Your task to perform on an android device: set the stopwatch Image 0: 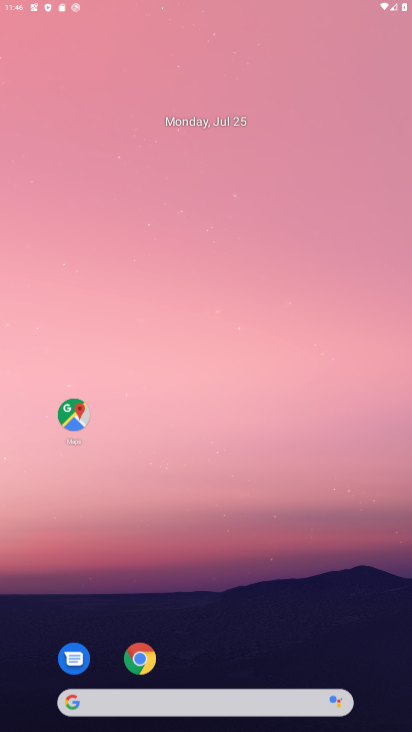
Step 0: press home button
Your task to perform on an android device: set the stopwatch Image 1: 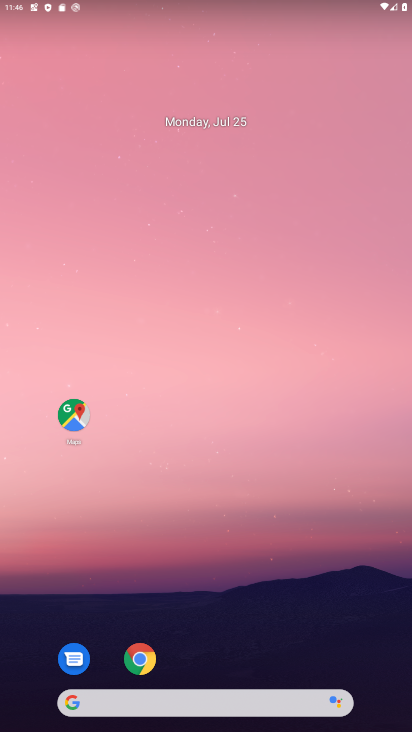
Step 1: click (141, 655)
Your task to perform on an android device: set the stopwatch Image 2: 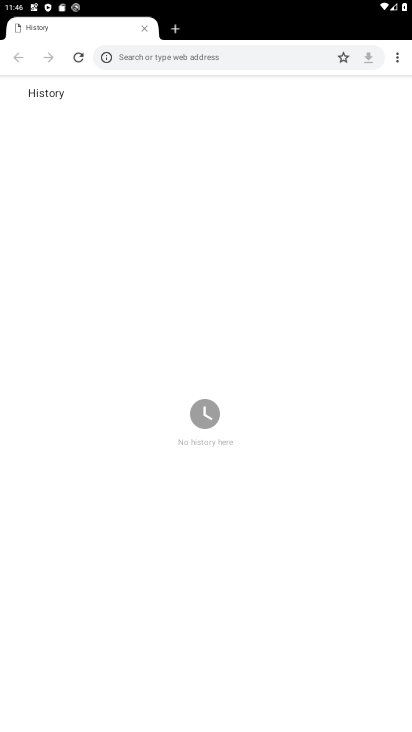
Step 2: click (181, 52)
Your task to perform on an android device: set the stopwatch Image 3: 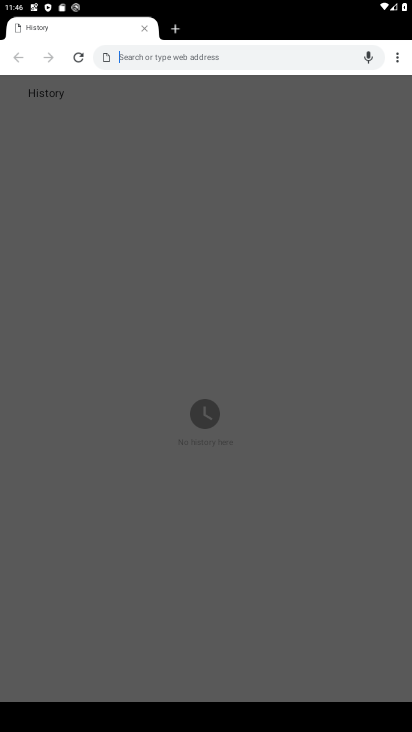
Step 3: type "www.yahoo.com"
Your task to perform on an android device: set the stopwatch Image 4: 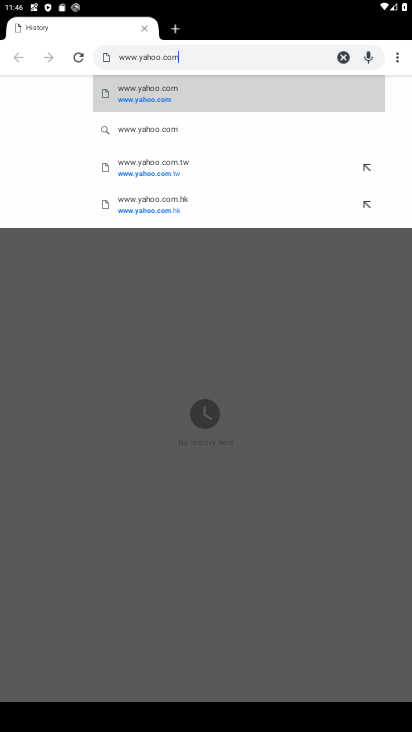
Step 4: click (140, 96)
Your task to perform on an android device: set the stopwatch Image 5: 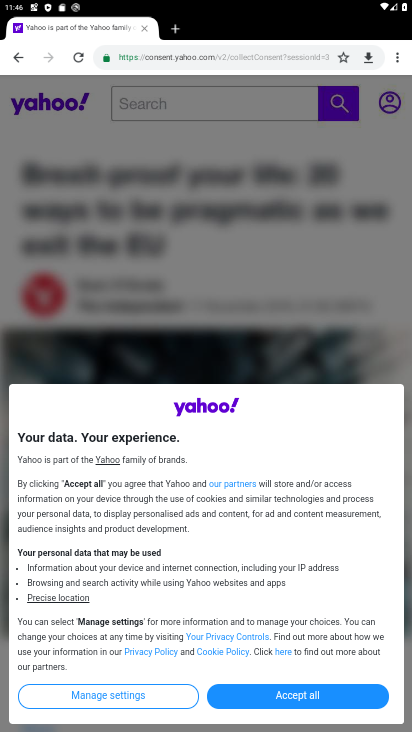
Step 5: press home button
Your task to perform on an android device: set the stopwatch Image 6: 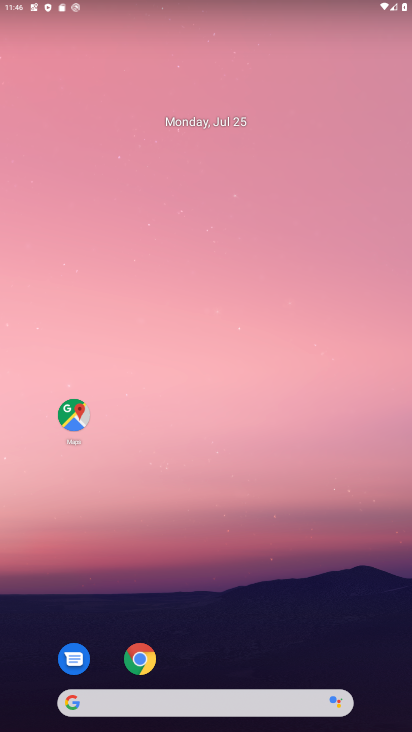
Step 6: drag from (215, 553) to (216, 23)
Your task to perform on an android device: set the stopwatch Image 7: 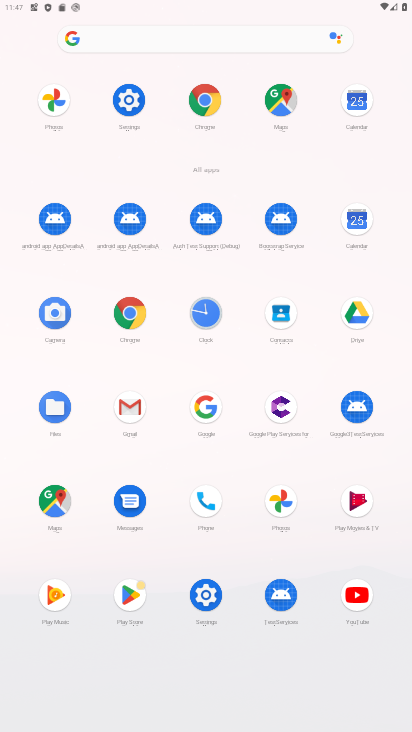
Step 7: click (203, 319)
Your task to perform on an android device: set the stopwatch Image 8: 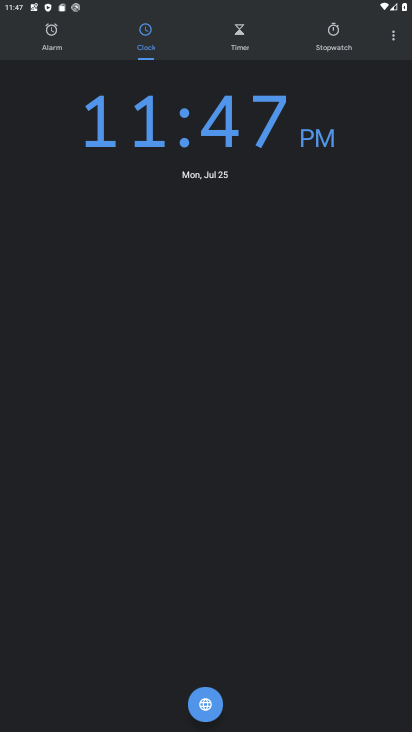
Step 8: click (343, 40)
Your task to perform on an android device: set the stopwatch Image 9: 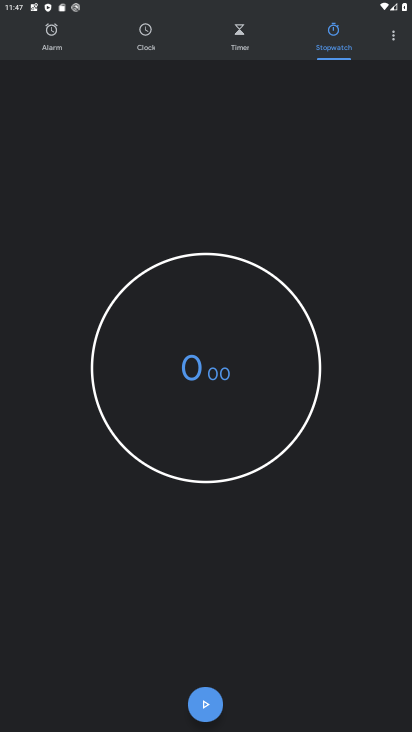
Step 9: click (208, 707)
Your task to perform on an android device: set the stopwatch Image 10: 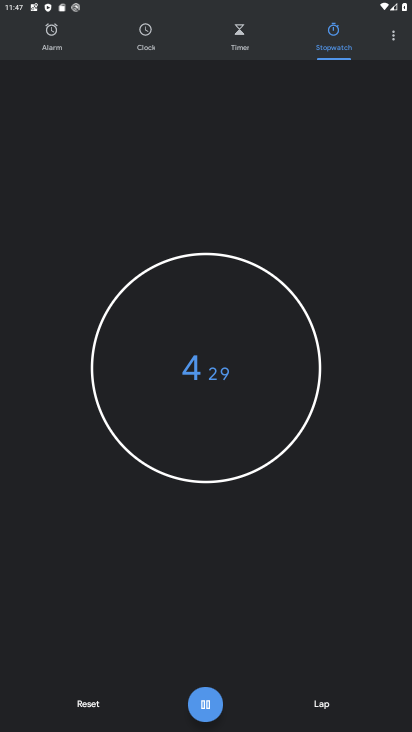
Step 10: click (208, 707)
Your task to perform on an android device: set the stopwatch Image 11: 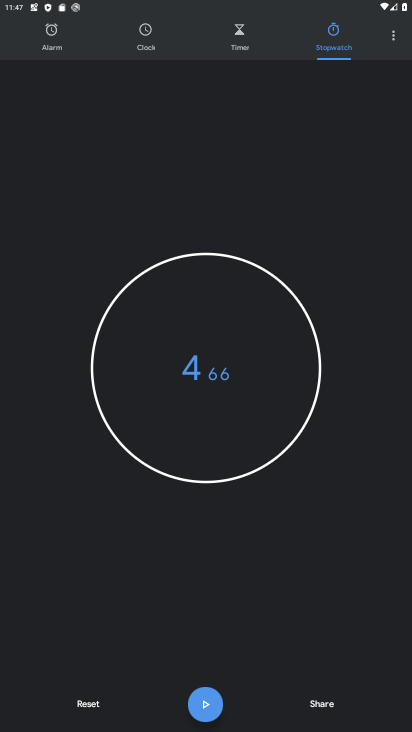
Step 11: task complete